Your task to perform on an android device: add a label to a message in the gmail app Image 0: 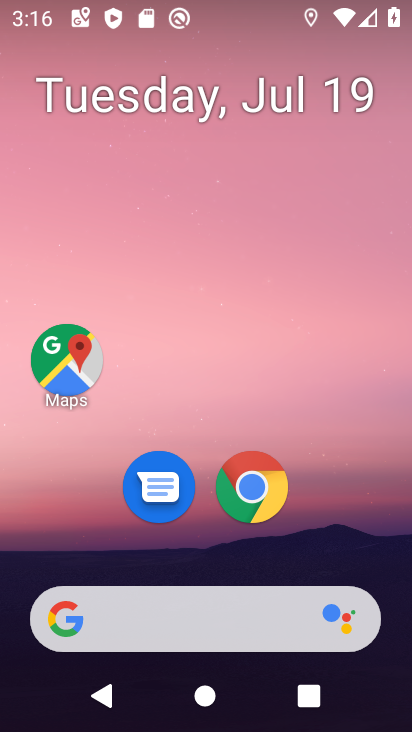
Step 0: drag from (249, 552) to (267, 98)
Your task to perform on an android device: add a label to a message in the gmail app Image 1: 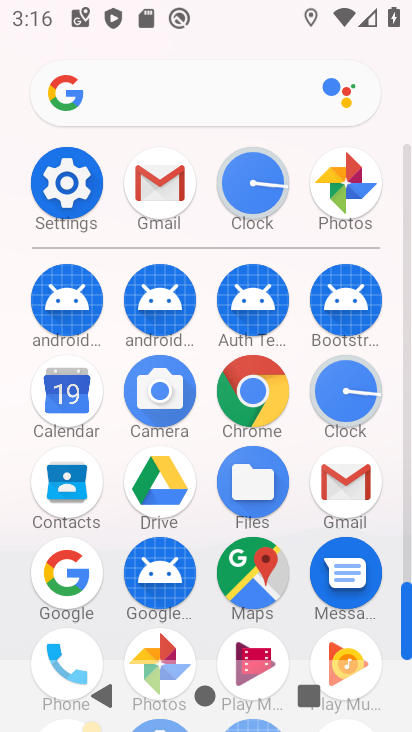
Step 1: click (151, 166)
Your task to perform on an android device: add a label to a message in the gmail app Image 2: 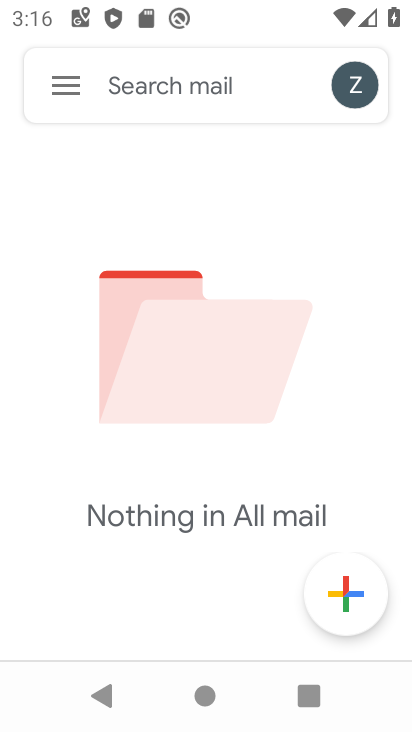
Step 2: task complete